Your task to perform on an android device: install app "AliExpress" Image 0: 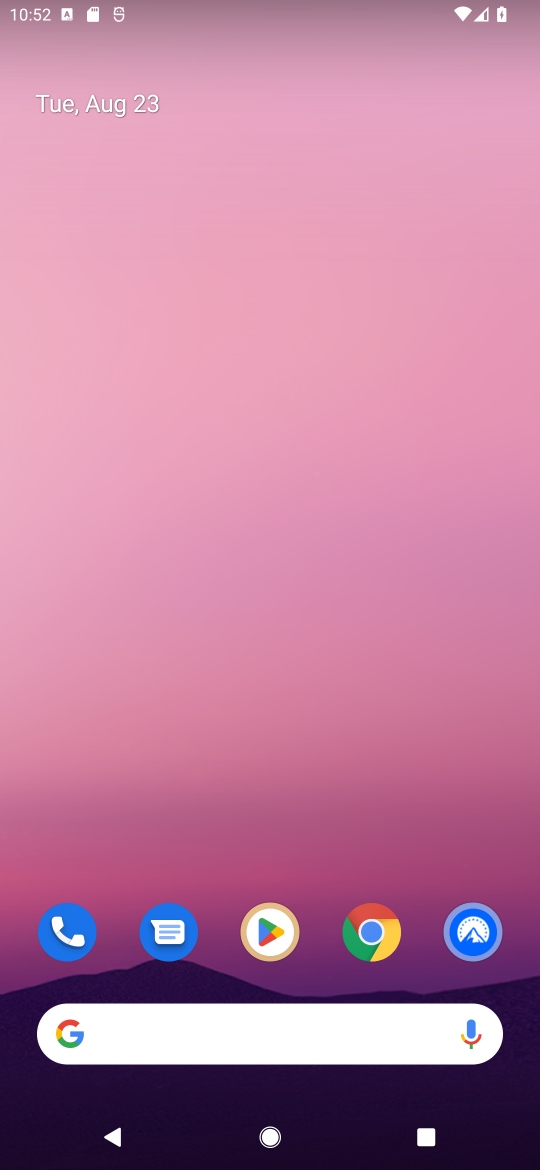
Step 0: click (264, 937)
Your task to perform on an android device: install app "AliExpress" Image 1: 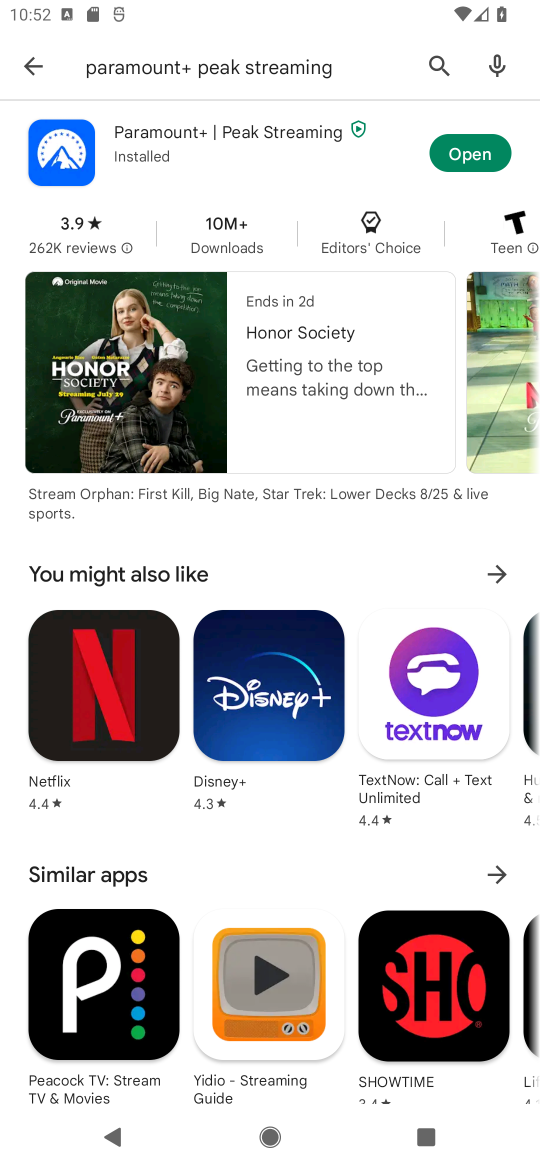
Step 1: click (439, 50)
Your task to perform on an android device: install app "AliExpress" Image 2: 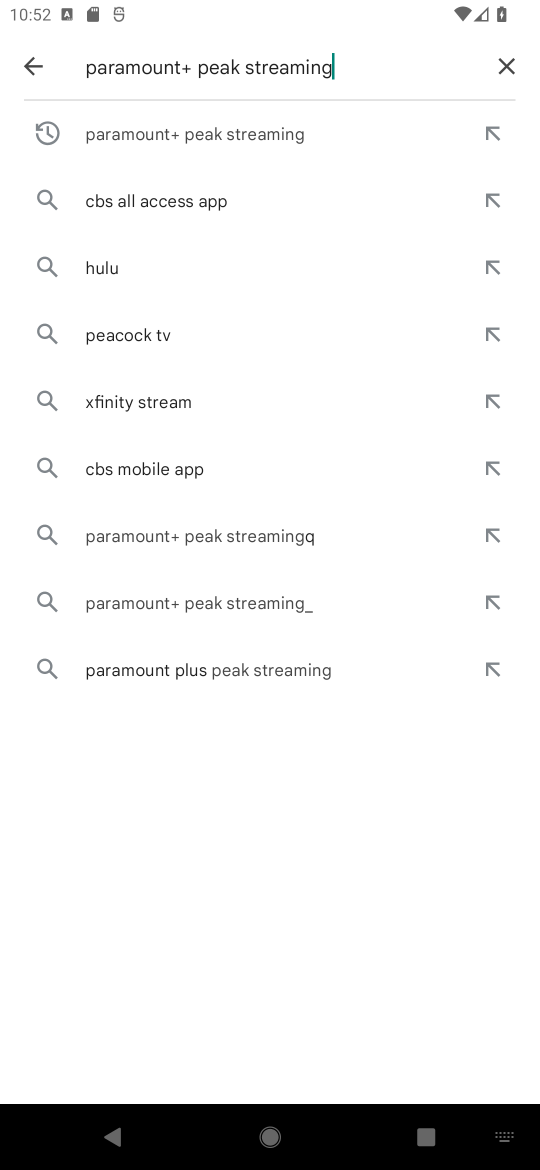
Step 2: click (507, 63)
Your task to perform on an android device: install app "AliExpress" Image 3: 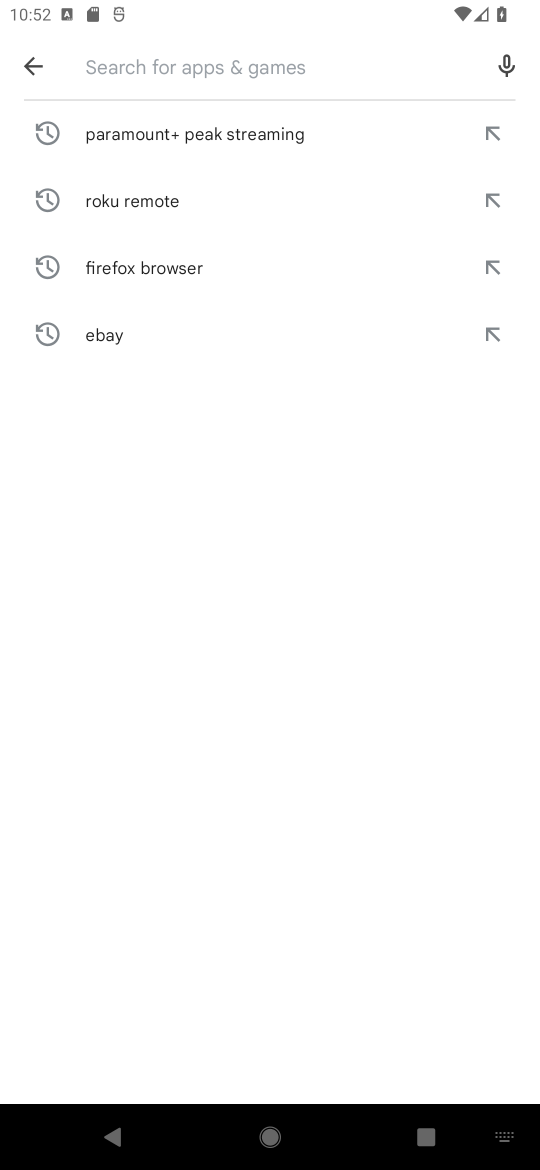
Step 3: click (179, 69)
Your task to perform on an android device: install app "AliExpress" Image 4: 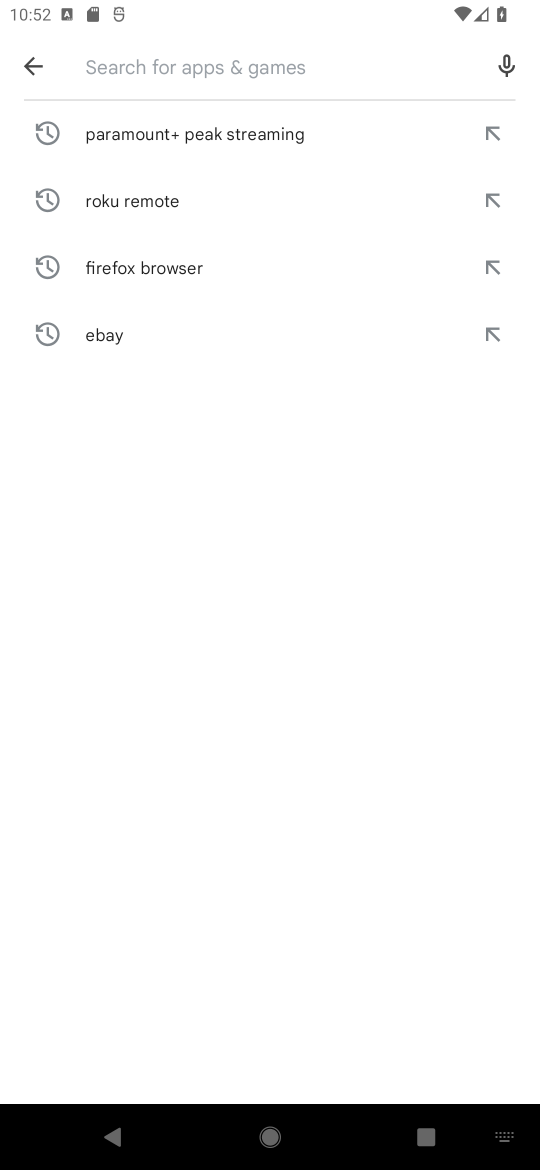
Step 4: type "AliExpress"
Your task to perform on an android device: install app "AliExpress" Image 5: 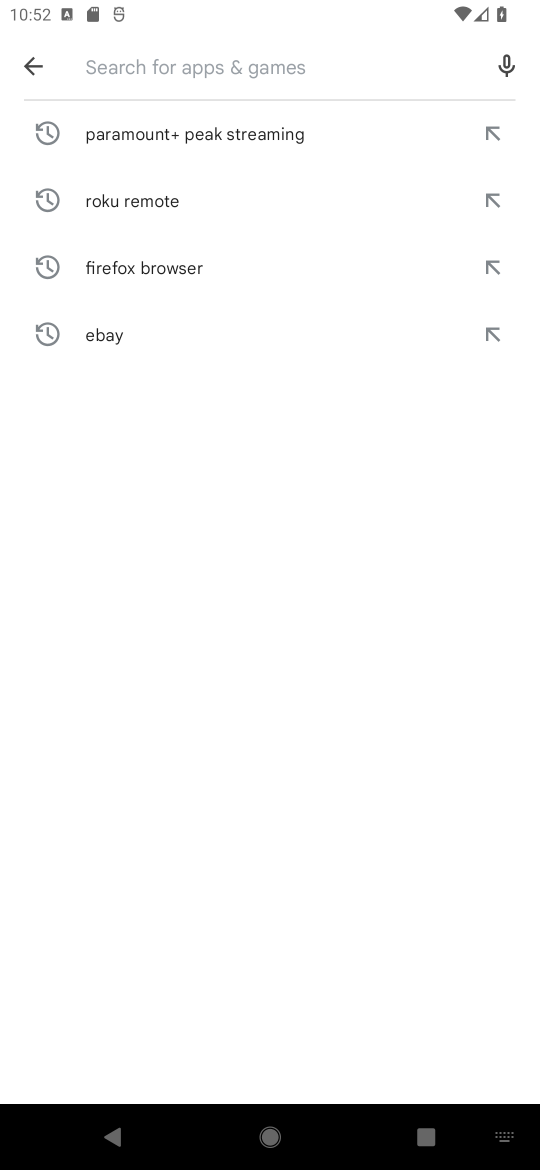
Step 5: click (317, 685)
Your task to perform on an android device: install app "AliExpress" Image 6: 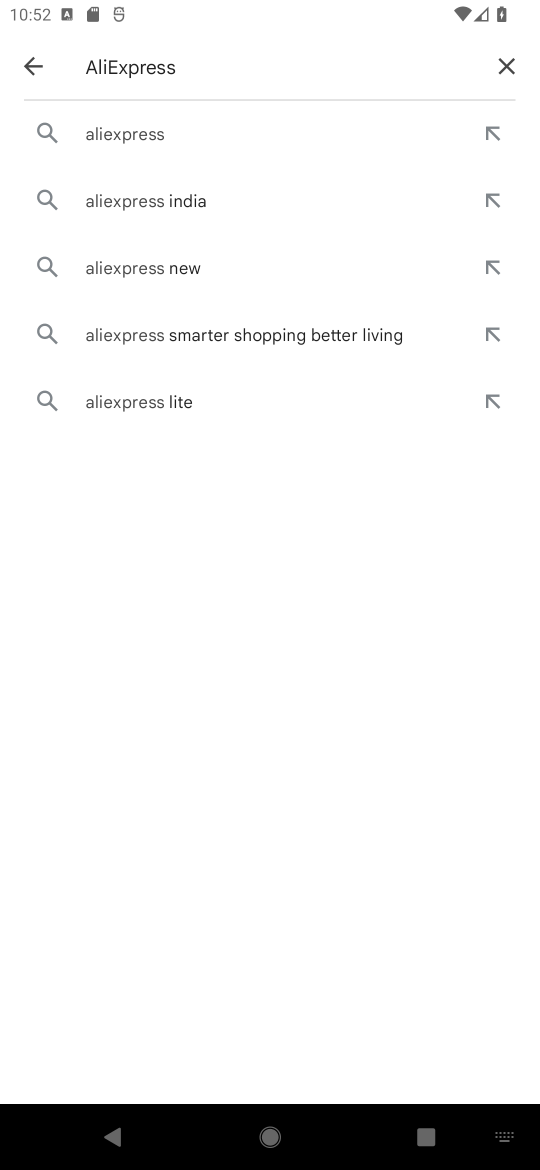
Step 6: click (144, 122)
Your task to perform on an android device: install app "AliExpress" Image 7: 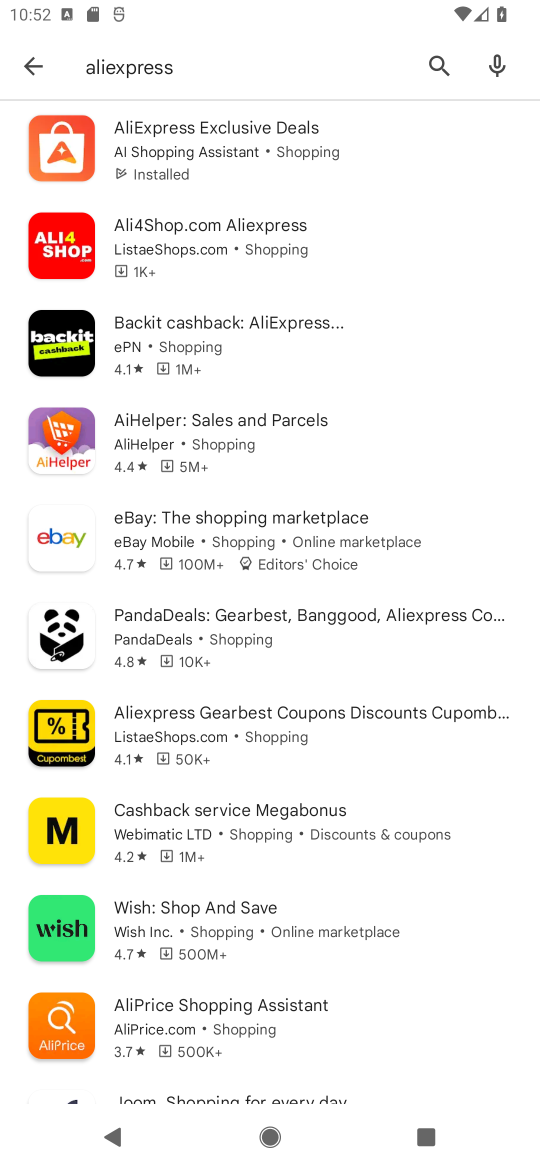
Step 7: click (203, 149)
Your task to perform on an android device: install app "AliExpress" Image 8: 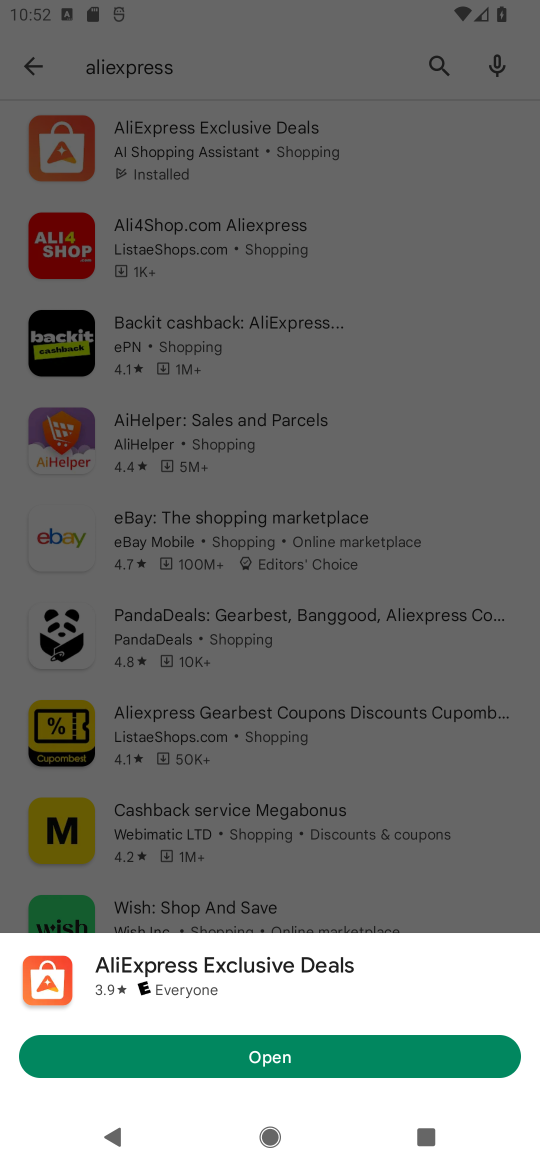
Step 8: click (248, 1054)
Your task to perform on an android device: install app "AliExpress" Image 9: 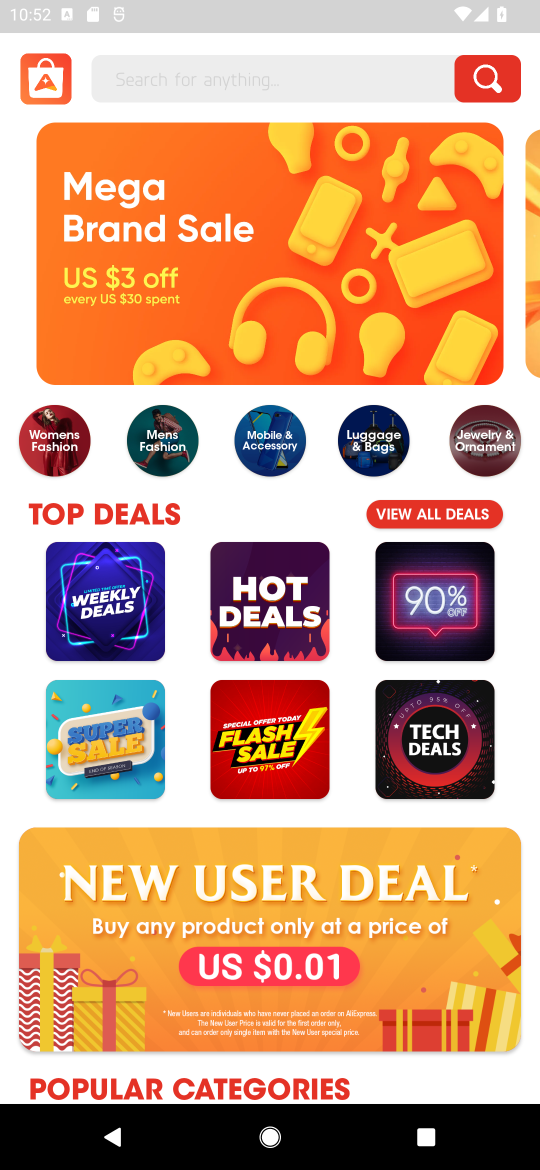
Step 9: task complete